Your task to perform on an android device: turn on notifications settings in the gmail app Image 0: 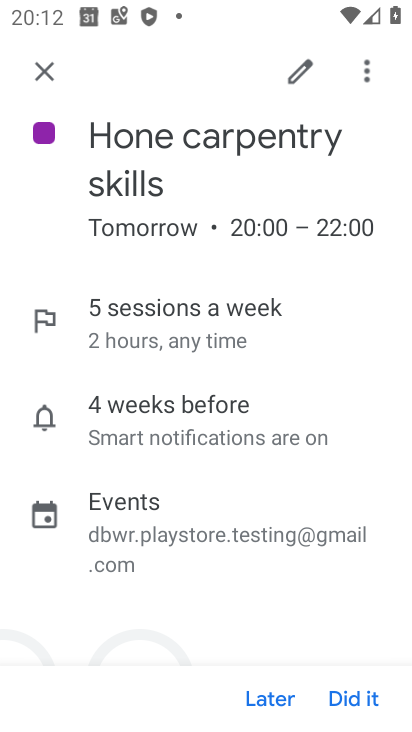
Step 0: press home button
Your task to perform on an android device: turn on notifications settings in the gmail app Image 1: 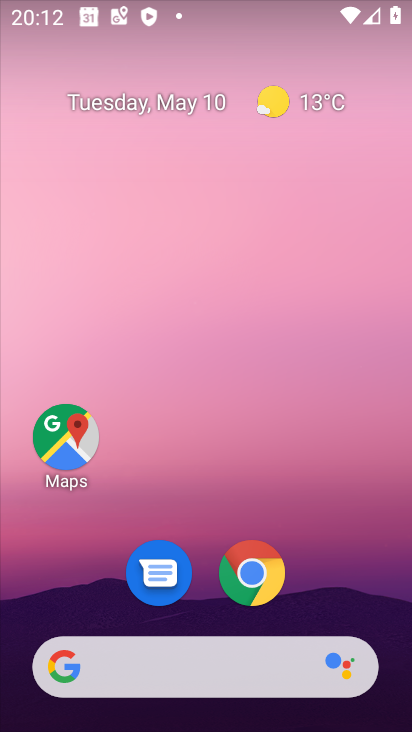
Step 1: drag from (358, 627) to (357, 1)
Your task to perform on an android device: turn on notifications settings in the gmail app Image 2: 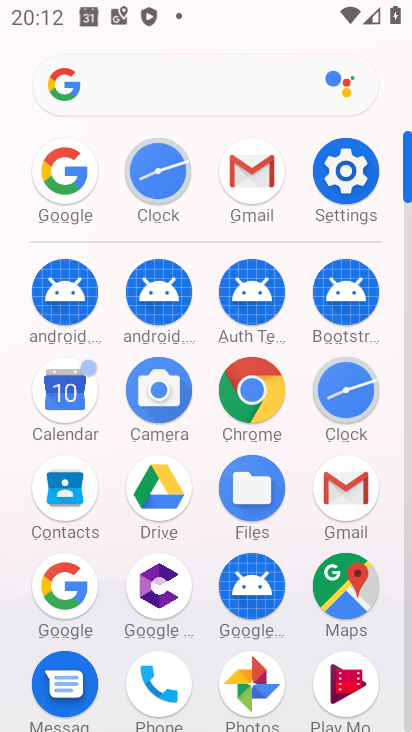
Step 2: click (254, 188)
Your task to perform on an android device: turn on notifications settings in the gmail app Image 3: 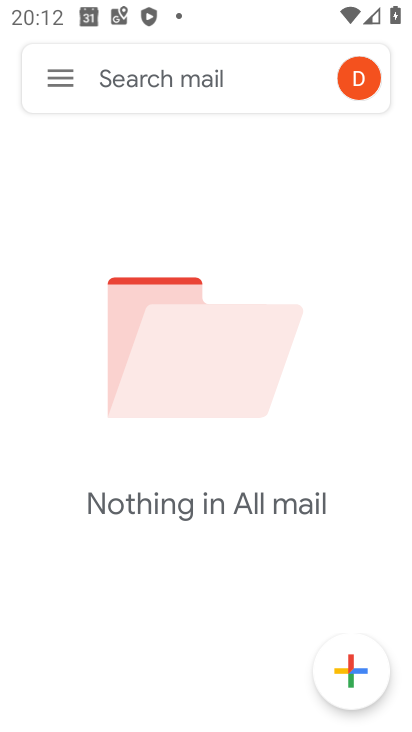
Step 3: click (47, 84)
Your task to perform on an android device: turn on notifications settings in the gmail app Image 4: 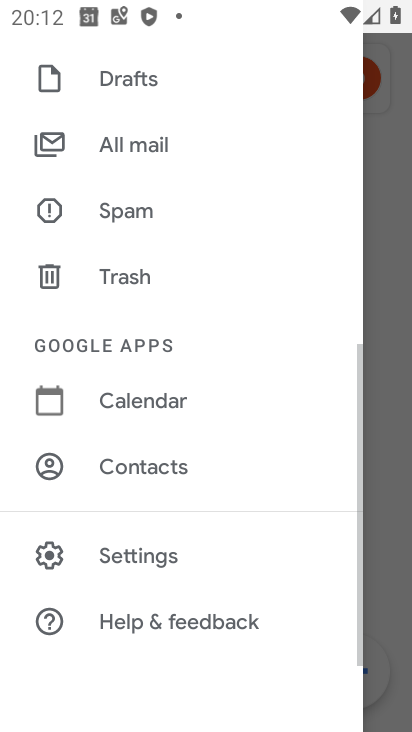
Step 4: click (147, 557)
Your task to perform on an android device: turn on notifications settings in the gmail app Image 5: 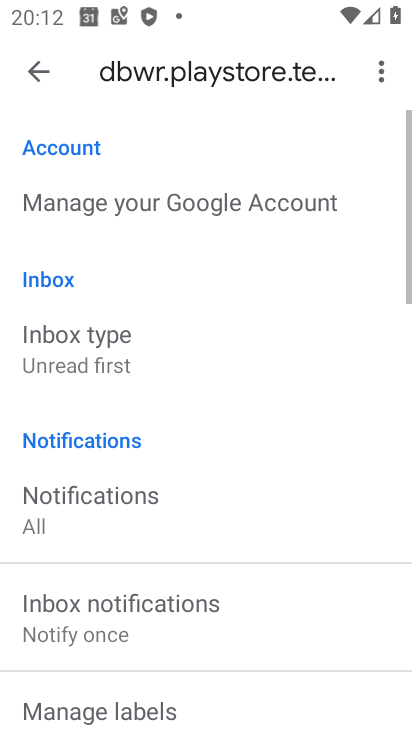
Step 5: click (33, 70)
Your task to perform on an android device: turn on notifications settings in the gmail app Image 6: 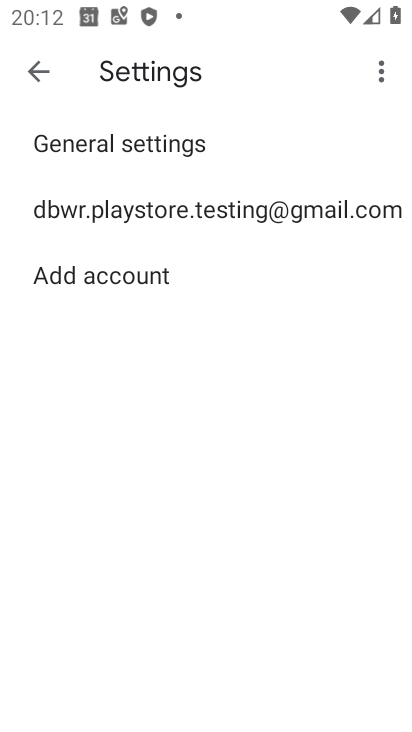
Step 6: click (76, 138)
Your task to perform on an android device: turn on notifications settings in the gmail app Image 7: 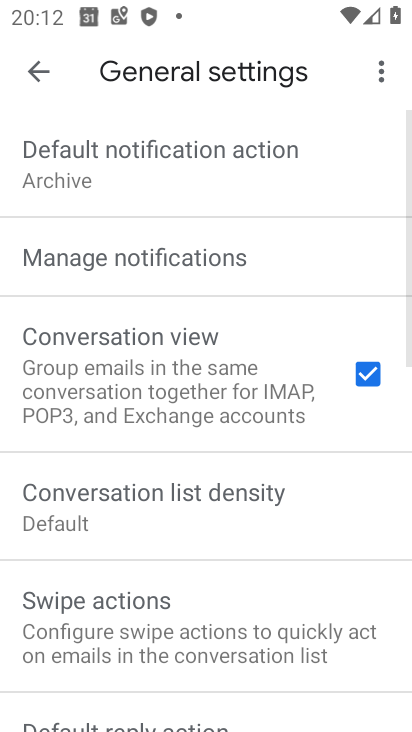
Step 7: click (152, 273)
Your task to perform on an android device: turn on notifications settings in the gmail app Image 8: 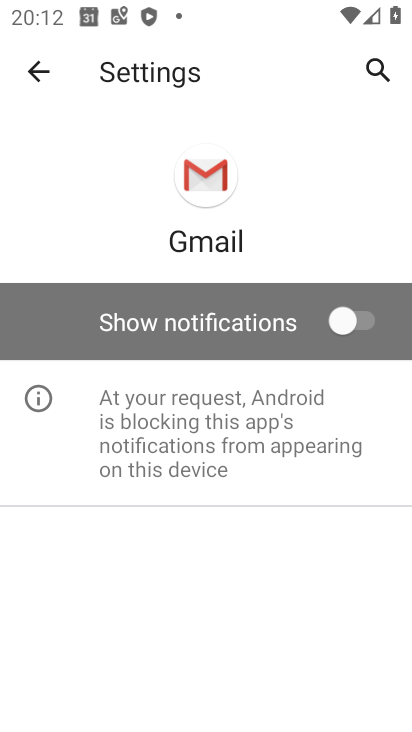
Step 8: click (350, 322)
Your task to perform on an android device: turn on notifications settings in the gmail app Image 9: 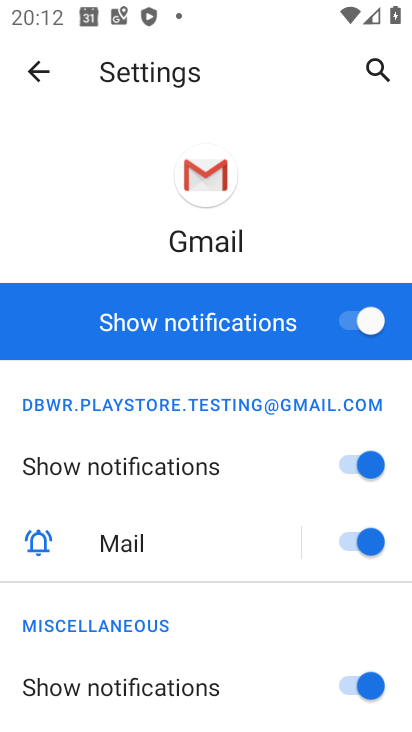
Step 9: task complete